Your task to perform on an android device: Open Amazon Image 0: 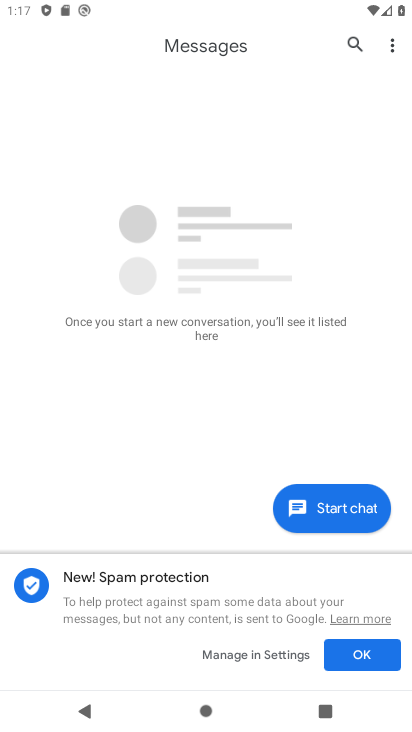
Step 0: press home button
Your task to perform on an android device: Open Amazon Image 1: 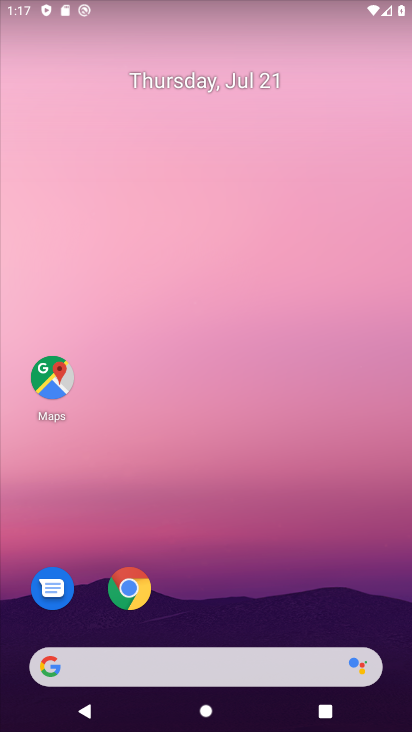
Step 1: drag from (220, 638) to (198, 0)
Your task to perform on an android device: Open Amazon Image 2: 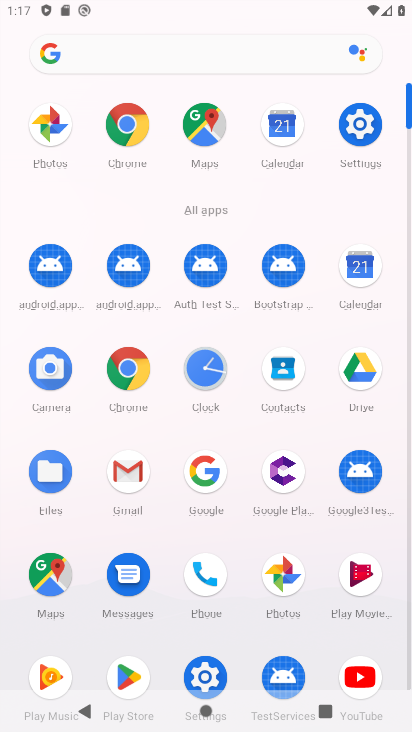
Step 2: click (124, 135)
Your task to perform on an android device: Open Amazon Image 3: 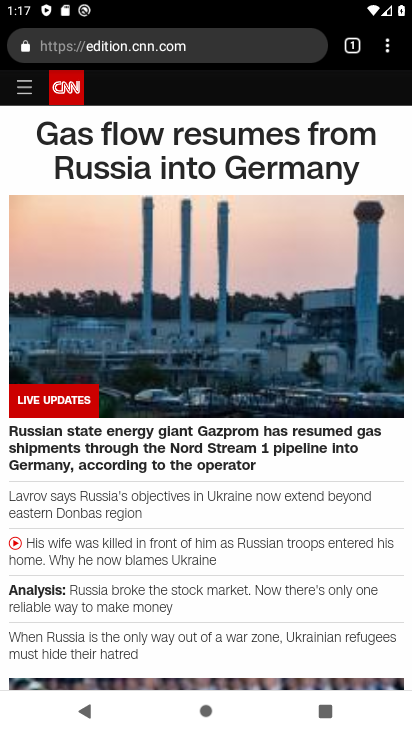
Step 3: click (355, 56)
Your task to perform on an android device: Open Amazon Image 4: 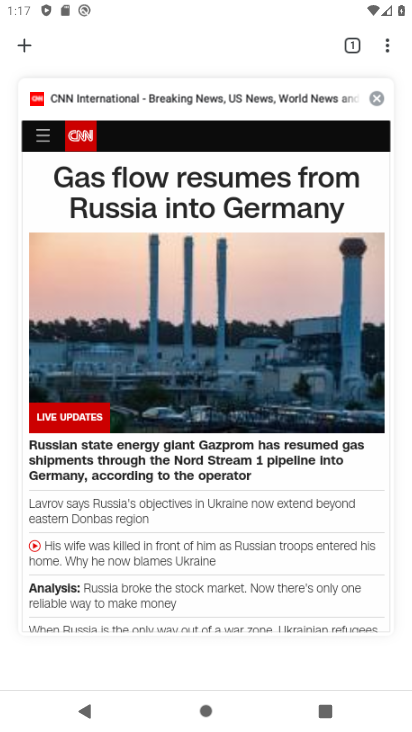
Step 4: click (20, 48)
Your task to perform on an android device: Open Amazon Image 5: 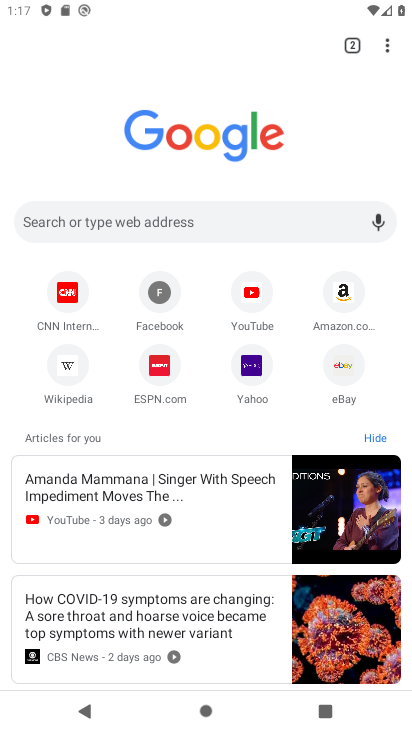
Step 5: click (329, 302)
Your task to perform on an android device: Open Amazon Image 6: 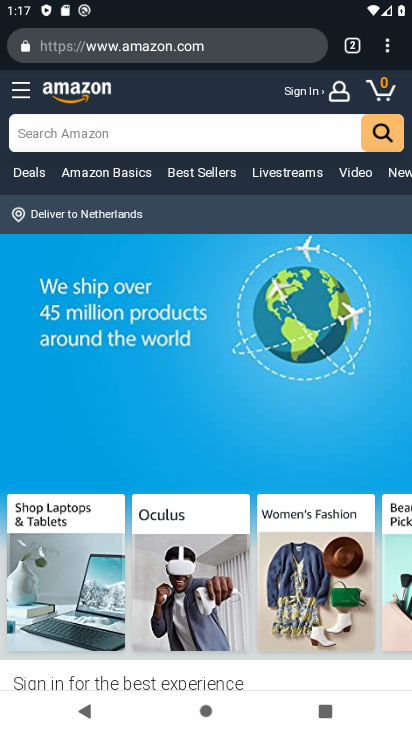
Step 6: task complete